Your task to perform on an android device: refresh tabs in the chrome app Image 0: 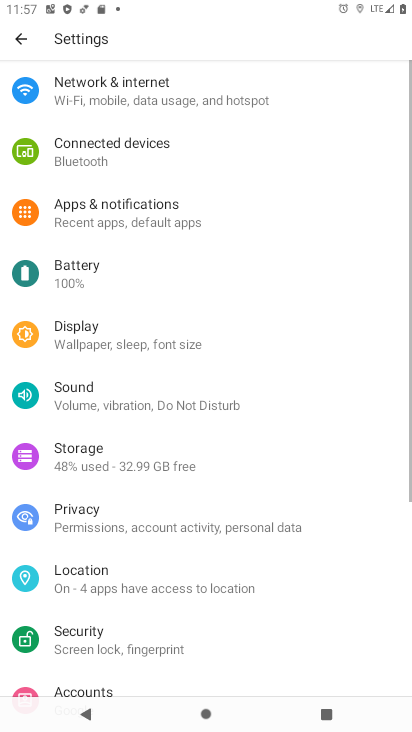
Step 0: press home button
Your task to perform on an android device: refresh tabs in the chrome app Image 1: 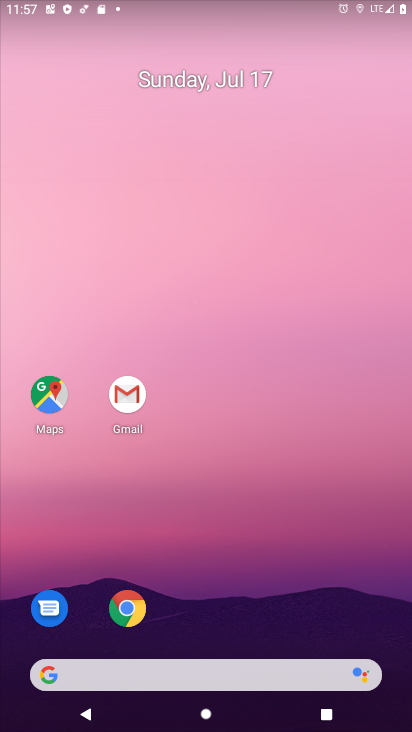
Step 1: click (142, 611)
Your task to perform on an android device: refresh tabs in the chrome app Image 2: 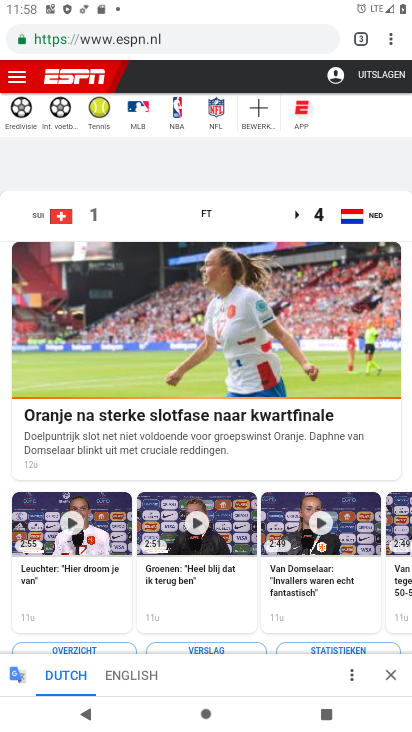
Step 2: click (386, 34)
Your task to perform on an android device: refresh tabs in the chrome app Image 3: 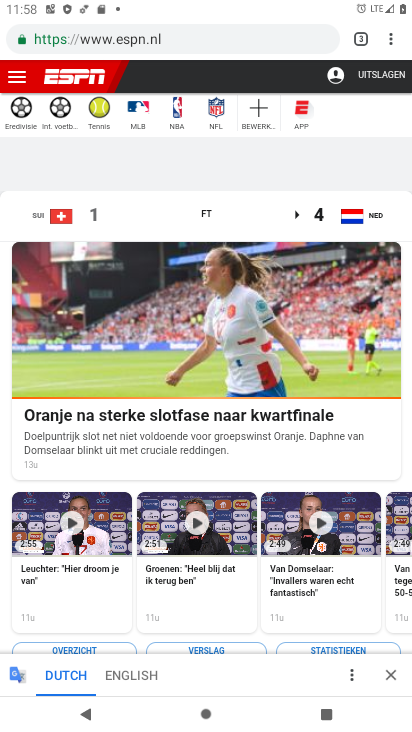
Step 3: click (388, 36)
Your task to perform on an android device: refresh tabs in the chrome app Image 4: 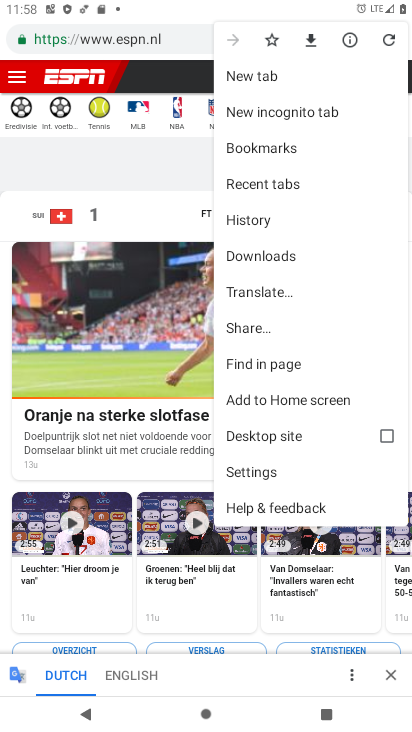
Step 4: click (388, 36)
Your task to perform on an android device: refresh tabs in the chrome app Image 5: 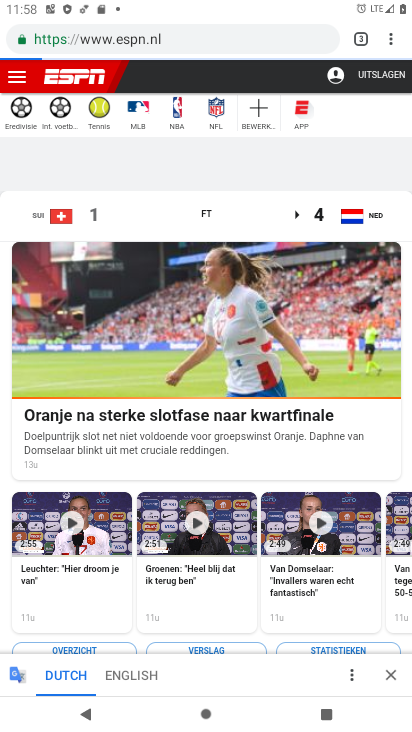
Step 5: task complete